Your task to perform on an android device: What's the weather going to be tomorrow? Image 0: 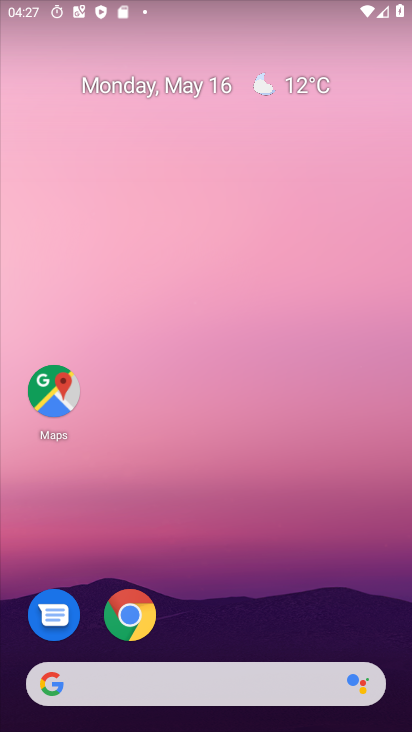
Step 0: drag from (369, 635) to (171, 125)
Your task to perform on an android device: What's the weather going to be tomorrow? Image 1: 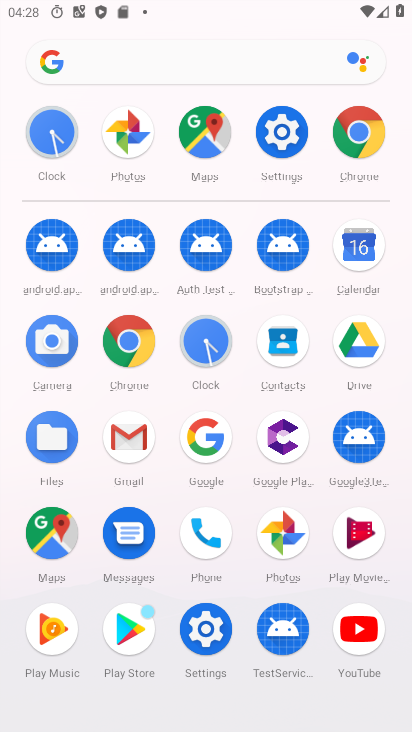
Step 1: click (349, 144)
Your task to perform on an android device: What's the weather going to be tomorrow? Image 2: 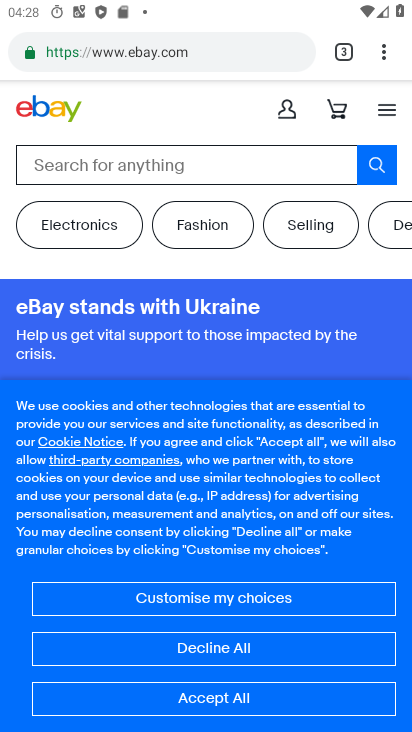
Step 2: click (377, 57)
Your task to perform on an android device: What's the weather going to be tomorrow? Image 3: 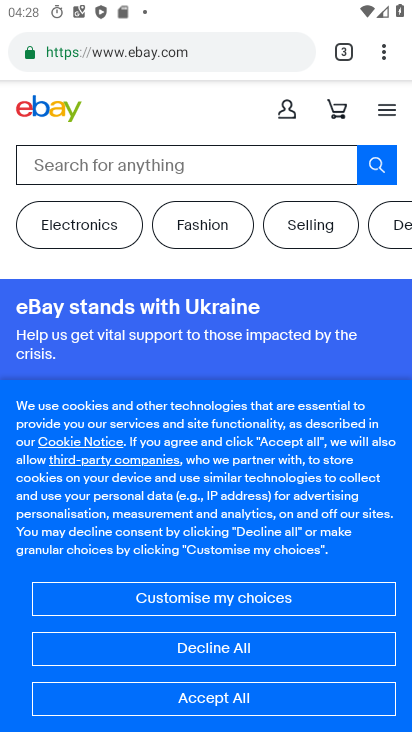
Step 3: press back button
Your task to perform on an android device: What's the weather going to be tomorrow? Image 4: 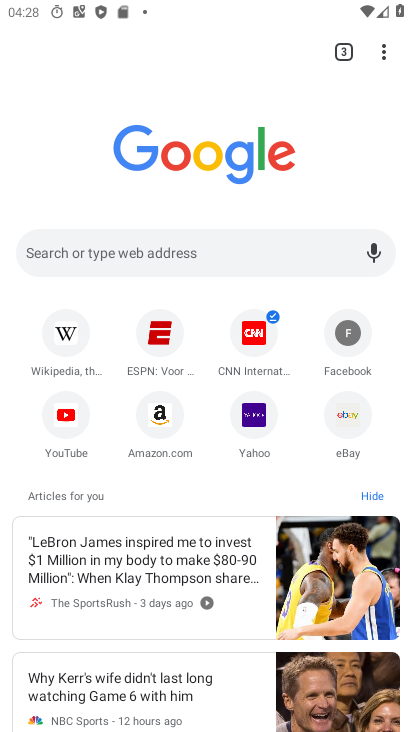
Step 4: press home button
Your task to perform on an android device: What's the weather going to be tomorrow? Image 5: 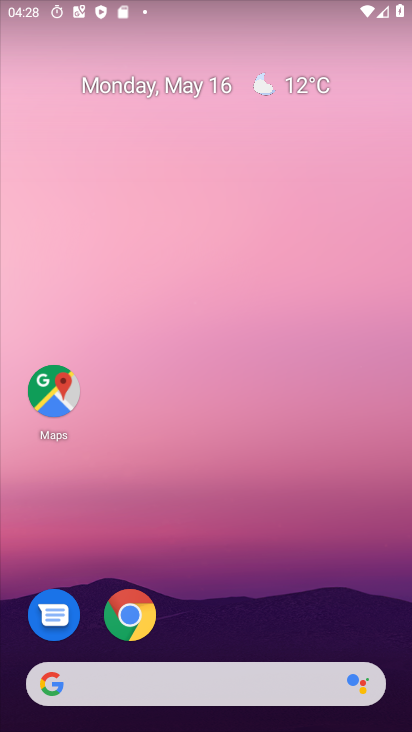
Step 5: drag from (6, 177) to (333, 361)
Your task to perform on an android device: What's the weather going to be tomorrow? Image 6: 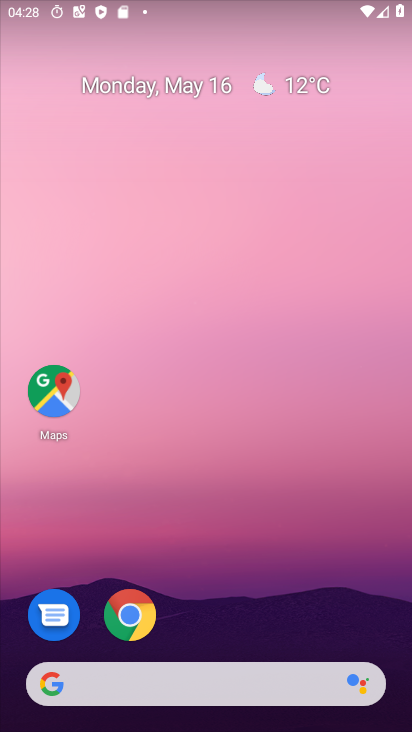
Step 6: drag from (51, 183) to (387, 387)
Your task to perform on an android device: What's the weather going to be tomorrow? Image 7: 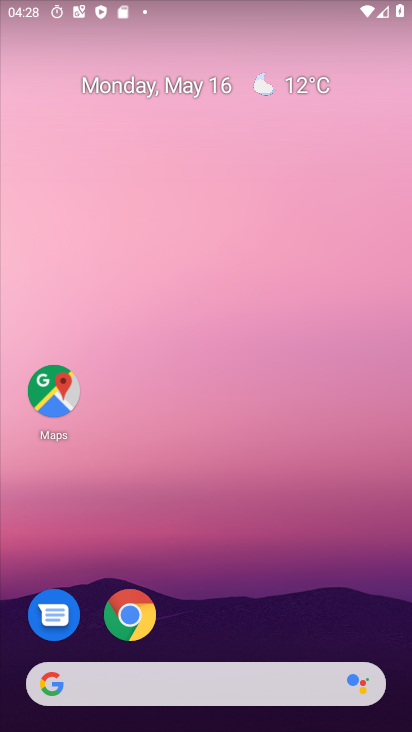
Step 7: drag from (1, 220) to (398, 281)
Your task to perform on an android device: What's the weather going to be tomorrow? Image 8: 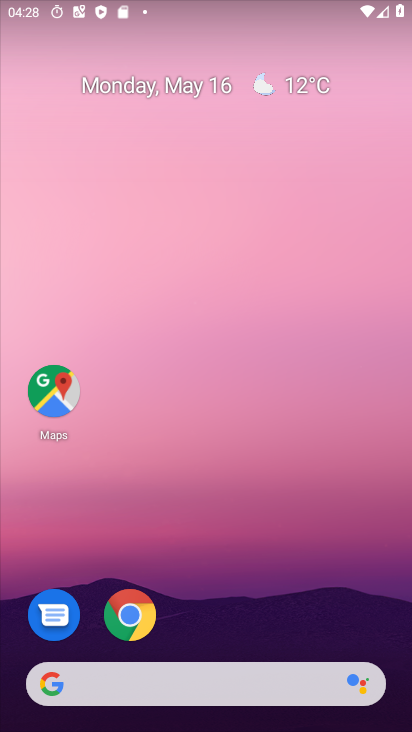
Step 8: drag from (22, 199) to (388, 446)
Your task to perform on an android device: What's the weather going to be tomorrow? Image 9: 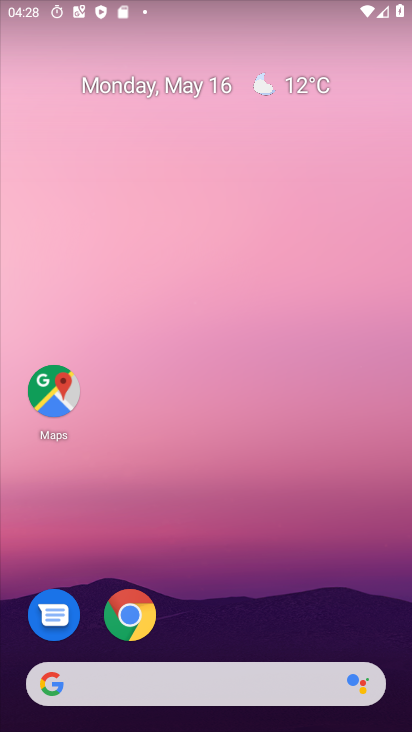
Step 9: drag from (7, 227) to (354, 343)
Your task to perform on an android device: What's the weather going to be tomorrow? Image 10: 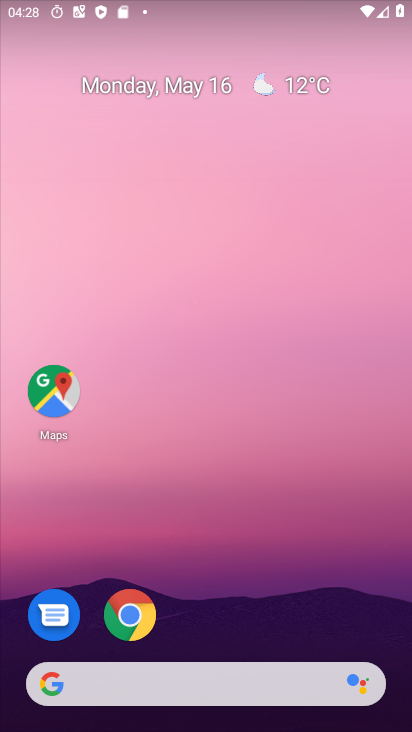
Step 10: drag from (211, 288) to (409, 473)
Your task to perform on an android device: What's the weather going to be tomorrow? Image 11: 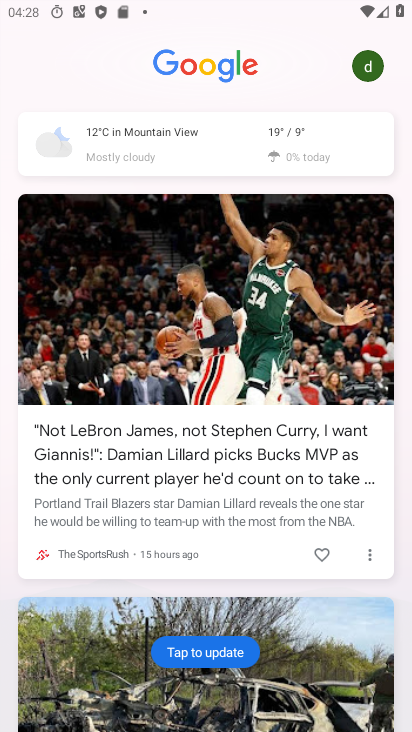
Step 11: drag from (0, 237) to (370, 399)
Your task to perform on an android device: What's the weather going to be tomorrow? Image 12: 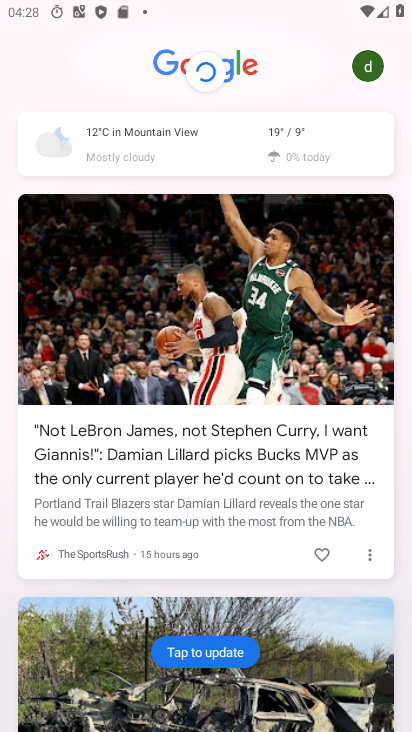
Step 12: click (168, 145)
Your task to perform on an android device: What's the weather going to be tomorrow? Image 13: 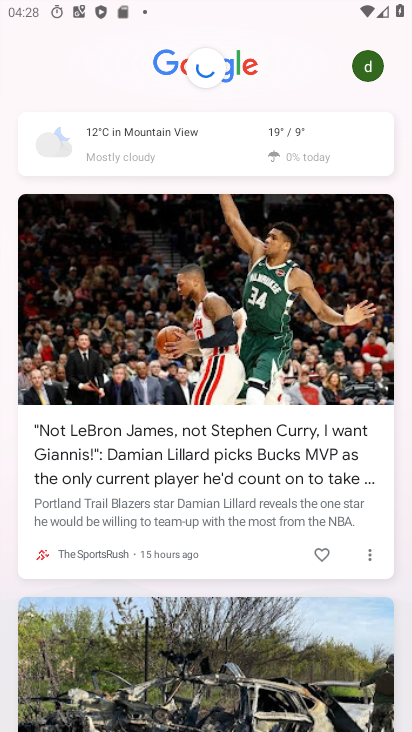
Step 13: click (168, 145)
Your task to perform on an android device: What's the weather going to be tomorrow? Image 14: 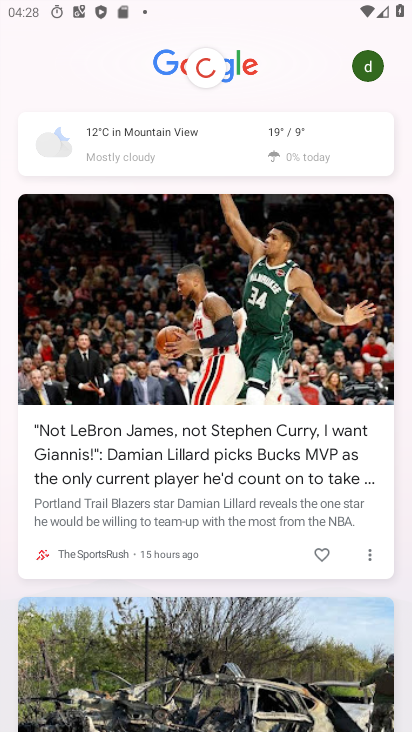
Step 14: click (160, 160)
Your task to perform on an android device: What's the weather going to be tomorrow? Image 15: 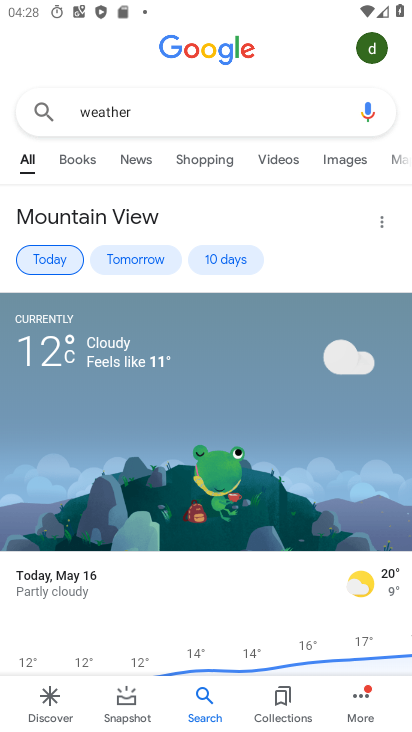
Step 15: click (126, 253)
Your task to perform on an android device: What's the weather going to be tomorrow? Image 16: 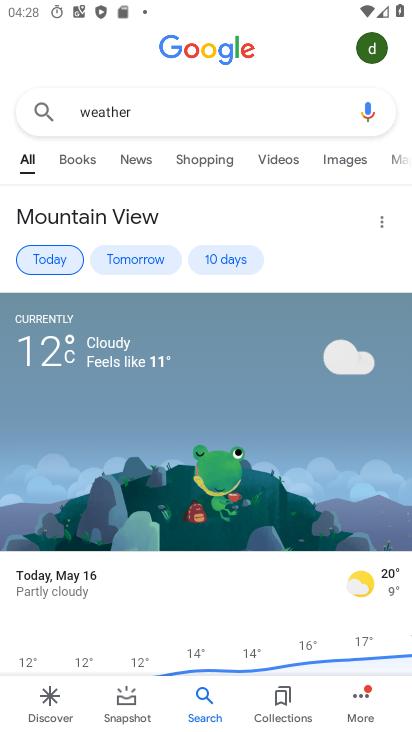
Step 16: click (124, 250)
Your task to perform on an android device: What's the weather going to be tomorrow? Image 17: 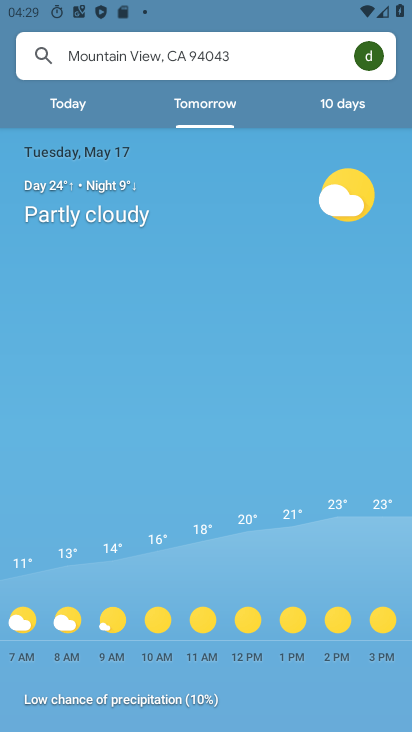
Step 17: click (345, 109)
Your task to perform on an android device: What's the weather going to be tomorrow? Image 18: 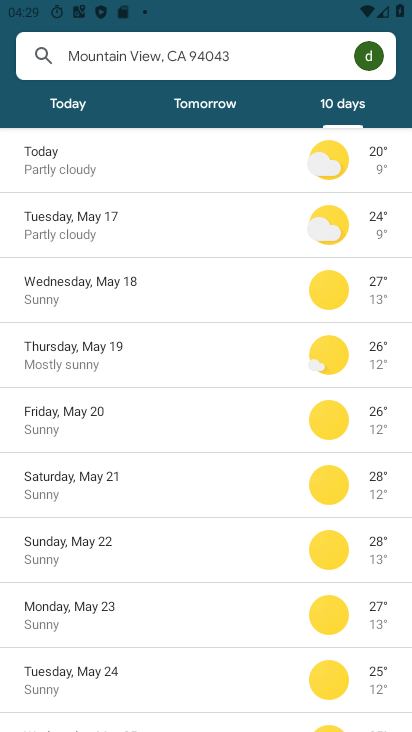
Step 18: drag from (124, 424) to (103, 54)
Your task to perform on an android device: What's the weather going to be tomorrow? Image 19: 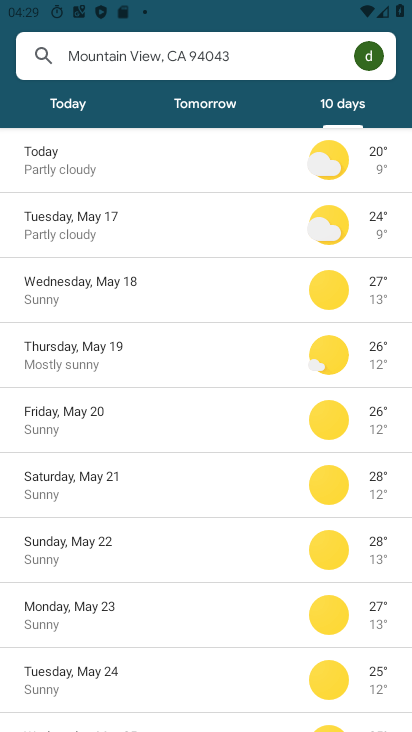
Step 19: drag from (144, 413) to (113, 139)
Your task to perform on an android device: What's the weather going to be tomorrow? Image 20: 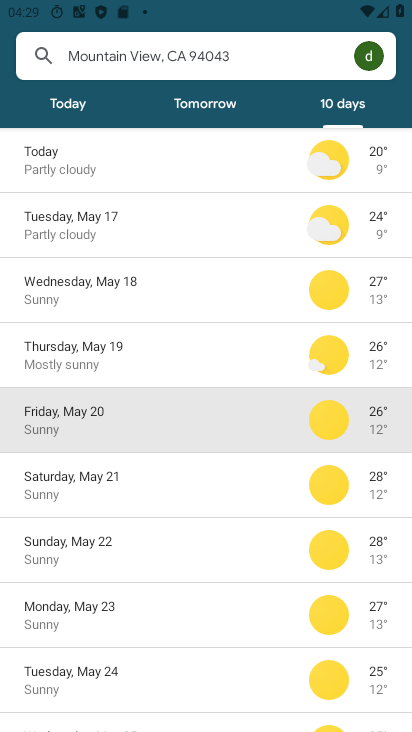
Step 20: drag from (142, 455) to (79, 181)
Your task to perform on an android device: What's the weather going to be tomorrow? Image 21: 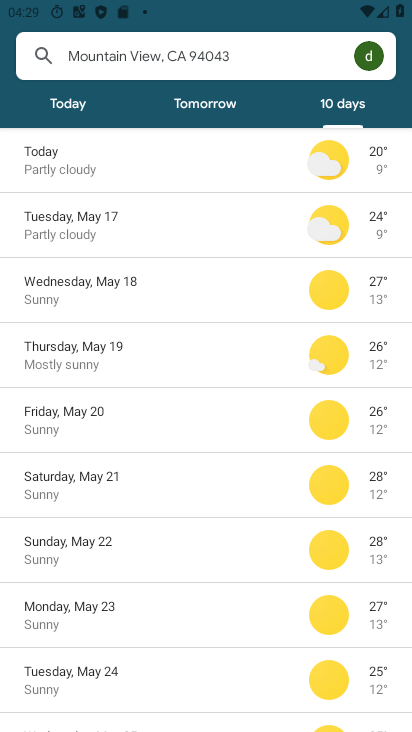
Step 21: drag from (176, 501) to (128, 85)
Your task to perform on an android device: What's the weather going to be tomorrow? Image 22: 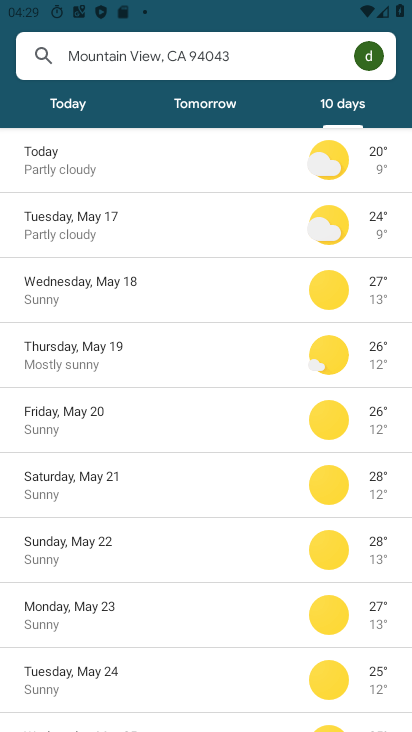
Step 22: drag from (210, 417) to (110, 143)
Your task to perform on an android device: What's the weather going to be tomorrow? Image 23: 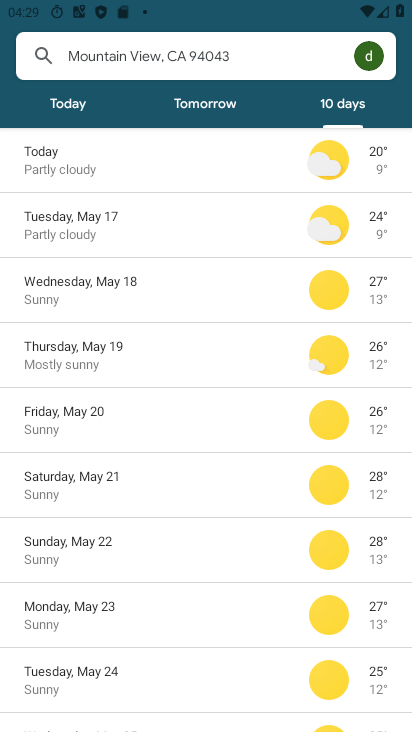
Step 23: drag from (69, 259) to (130, 662)
Your task to perform on an android device: What's the weather going to be tomorrow? Image 24: 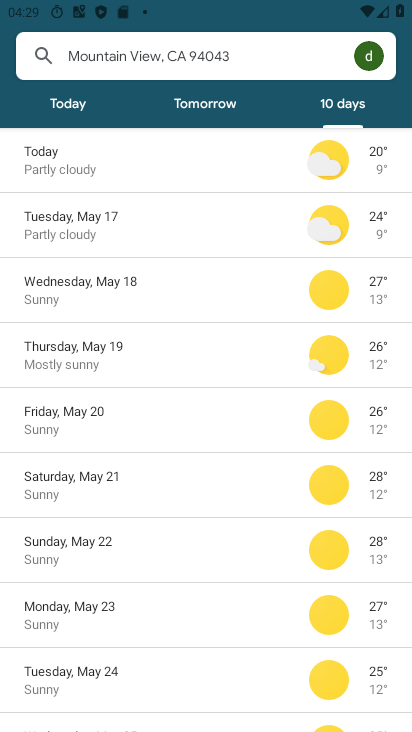
Step 24: drag from (103, 253) to (99, 697)
Your task to perform on an android device: What's the weather going to be tomorrow? Image 25: 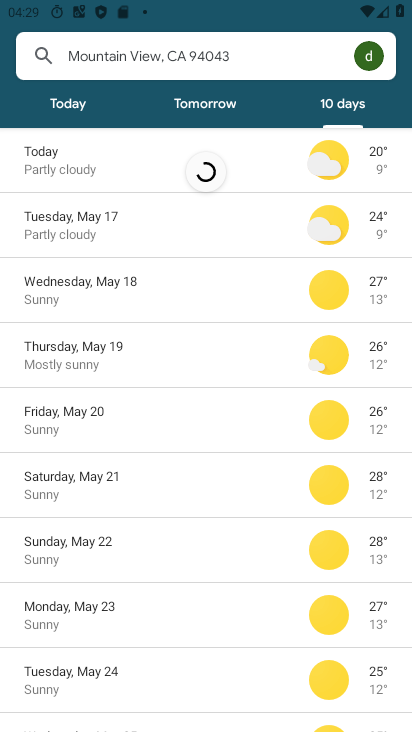
Step 25: click (191, 102)
Your task to perform on an android device: What's the weather going to be tomorrow? Image 26: 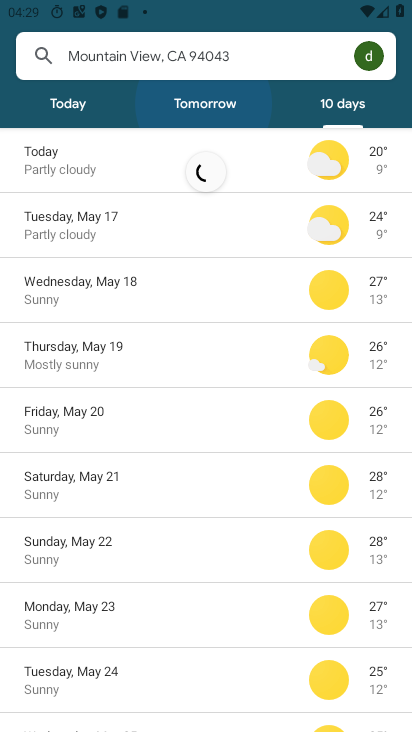
Step 26: click (191, 102)
Your task to perform on an android device: What's the weather going to be tomorrow? Image 27: 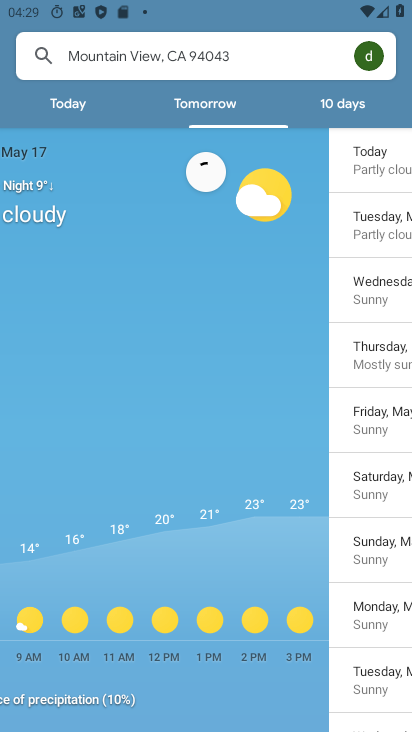
Step 27: click (184, 106)
Your task to perform on an android device: What's the weather going to be tomorrow? Image 28: 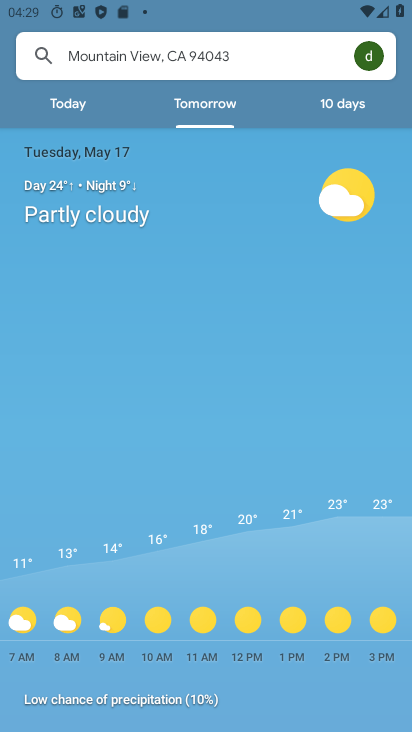
Step 28: task complete